Your task to perform on an android device: Open the map Image 0: 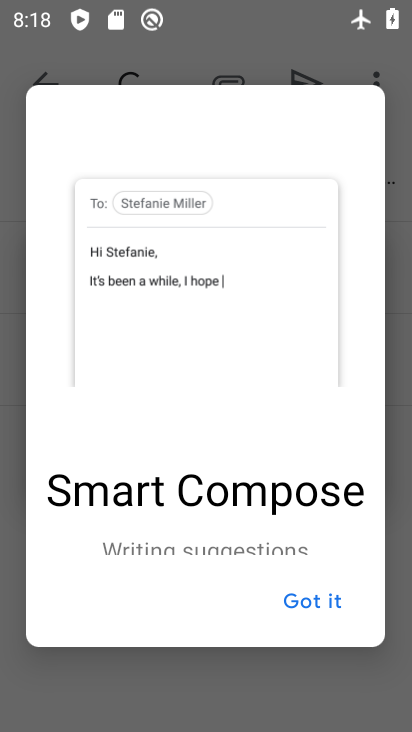
Step 0: press home button
Your task to perform on an android device: Open the map Image 1: 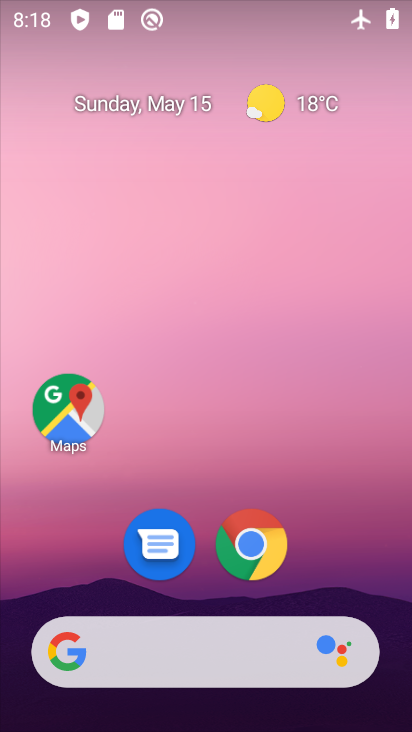
Step 1: click (79, 400)
Your task to perform on an android device: Open the map Image 2: 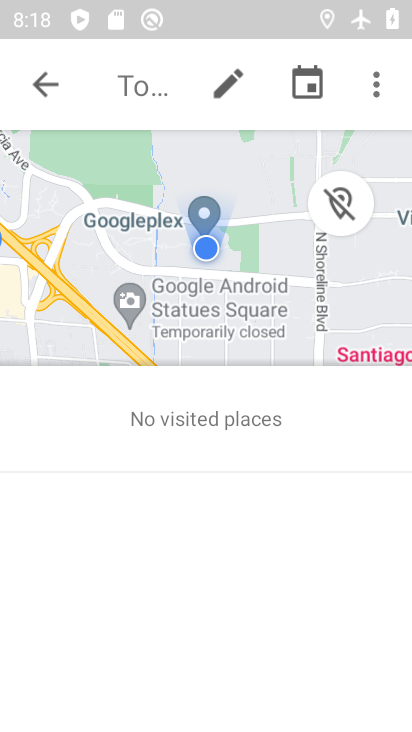
Step 2: task complete